Your task to perform on an android device: What is the news today? Image 0: 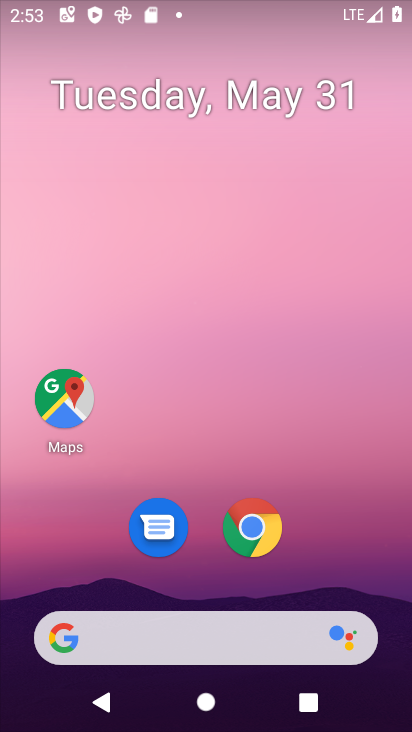
Step 0: drag from (369, 498) to (341, 18)
Your task to perform on an android device: What is the news today? Image 1: 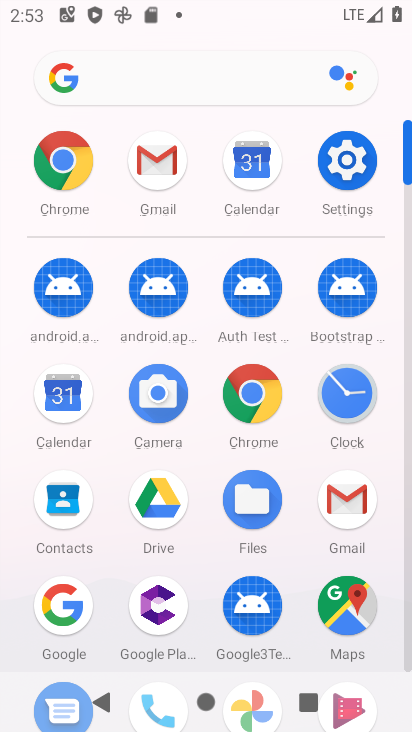
Step 1: click (66, 162)
Your task to perform on an android device: What is the news today? Image 2: 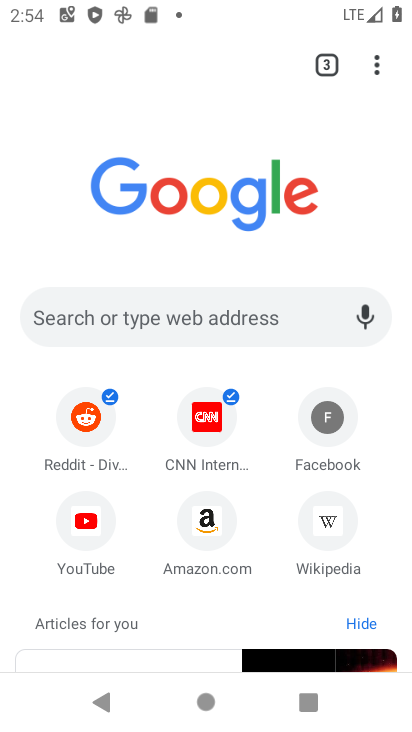
Step 2: task complete